Your task to perform on an android device: turn smart compose on in the gmail app Image 0: 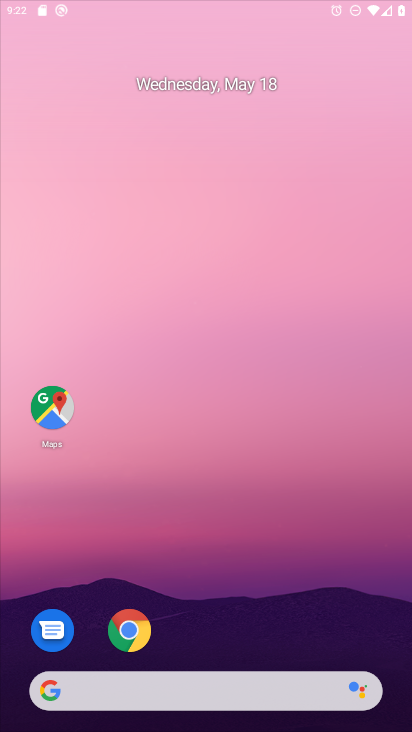
Step 0: drag from (160, 514) to (120, 76)
Your task to perform on an android device: turn smart compose on in the gmail app Image 1: 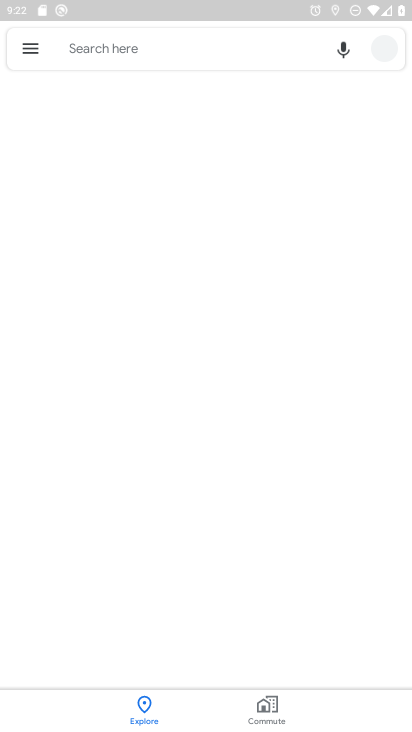
Step 1: press home button
Your task to perform on an android device: turn smart compose on in the gmail app Image 2: 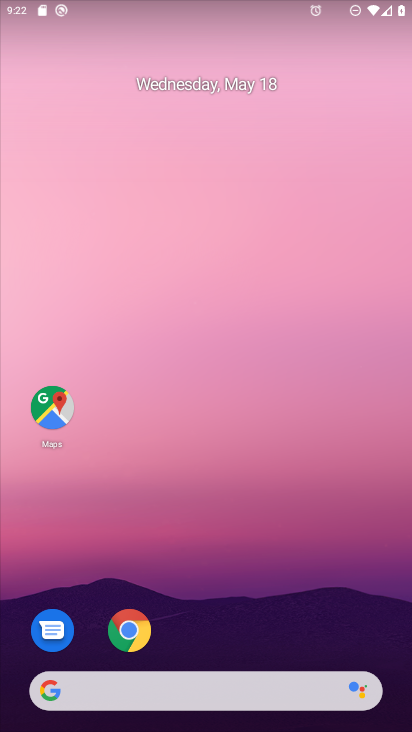
Step 2: drag from (213, 670) to (155, 109)
Your task to perform on an android device: turn smart compose on in the gmail app Image 3: 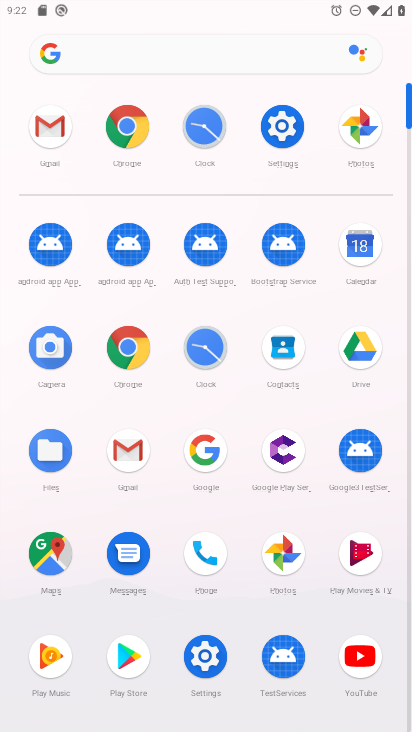
Step 3: click (132, 457)
Your task to perform on an android device: turn smart compose on in the gmail app Image 4: 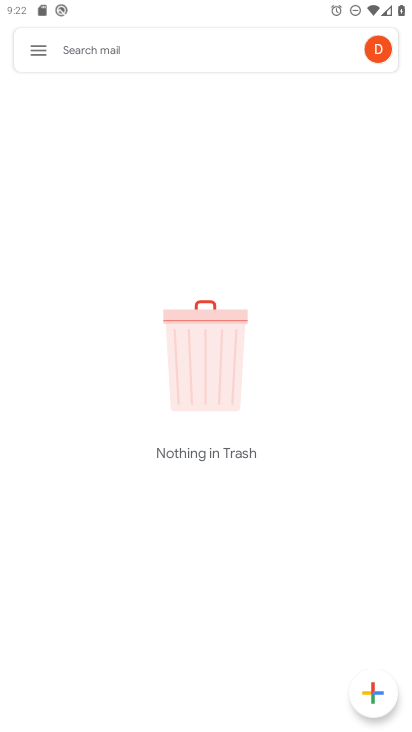
Step 4: click (34, 50)
Your task to perform on an android device: turn smart compose on in the gmail app Image 5: 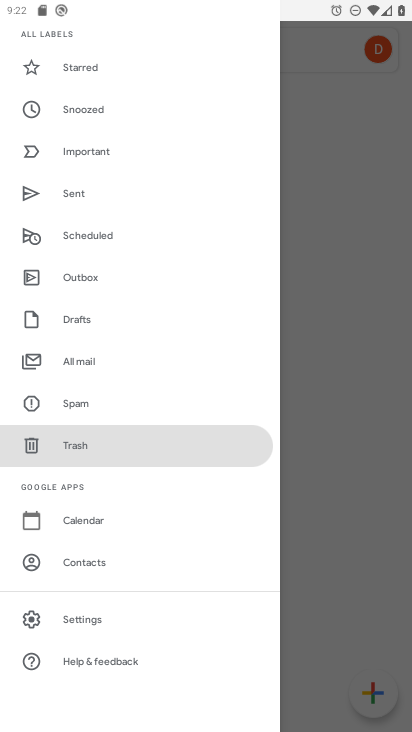
Step 5: click (90, 618)
Your task to perform on an android device: turn smart compose on in the gmail app Image 6: 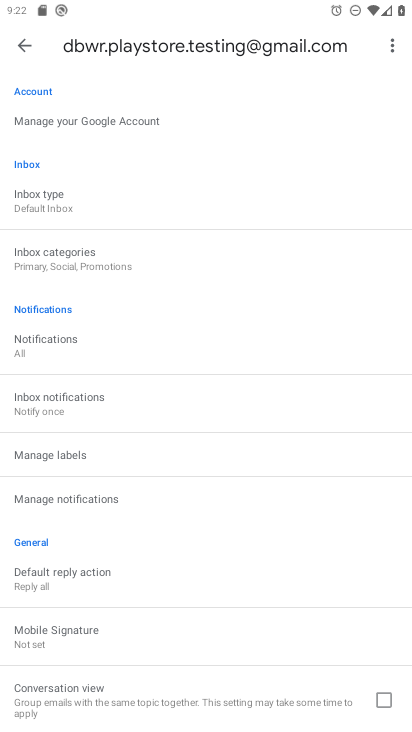
Step 6: task complete